Your task to perform on an android device: change your default location settings in chrome Image 0: 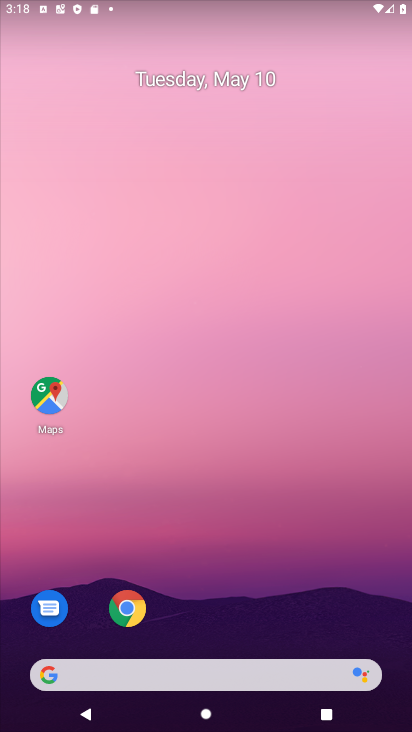
Step 0: click (127, 604)
Your task to perform on an android device: change your default location settings in chrome Image 1: 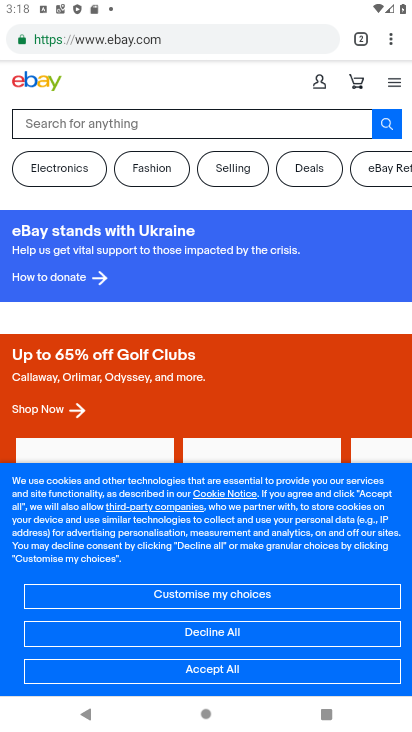
Step 1: click (388, 37)
Your task to perform on an android device: change your default location settings in chrome Image 2: 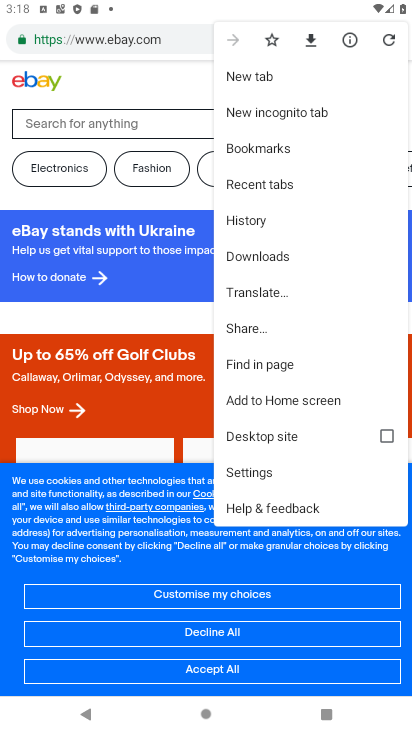
Step 2: click (266, 466)
Your task to perform on an android device: change your default location settings in chrome Image 3: 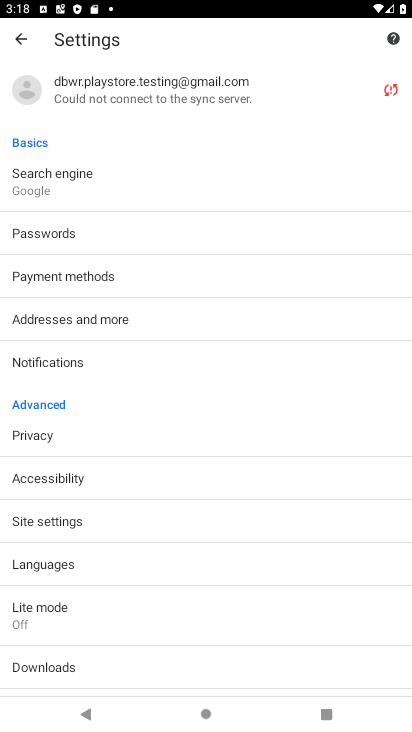
Step 3: click (52, 513)
Your task to perform on an android device: change your default location settings in chrome Image 4: 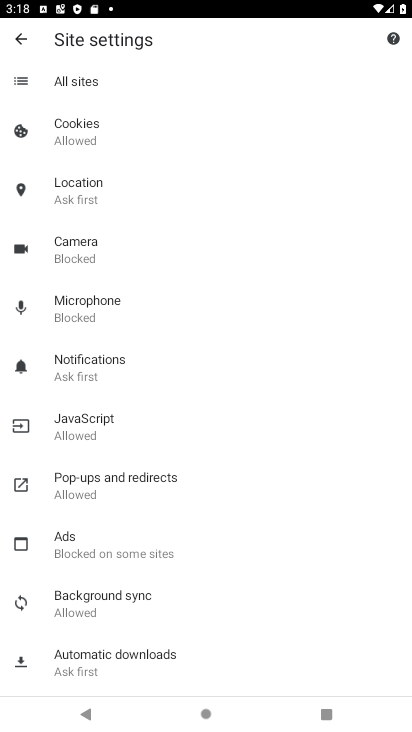
Step 4: click (84, 186)
Your task to perform on an android device: change your default location settings in chrome Image 5: 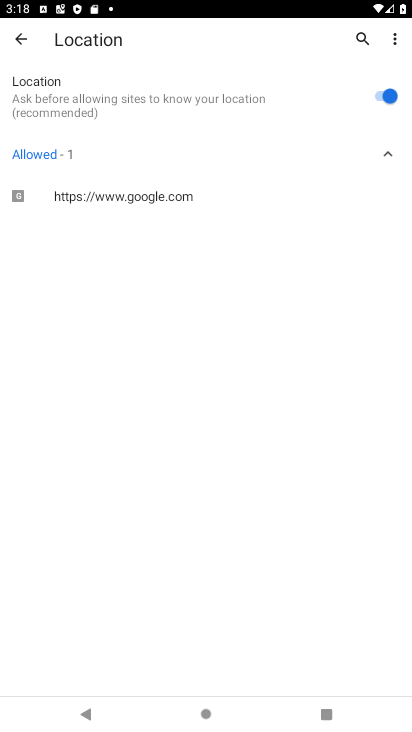
Step 5: click (373, 90)
Your task to perform on an android device: change your default location settings in chrome Image 6: 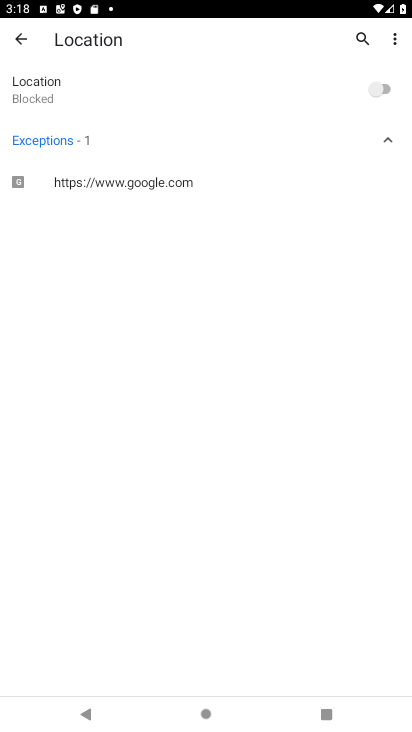
Step 6: task complete